Your task to perform on an android device: turn off improve location accuracy Image 0: 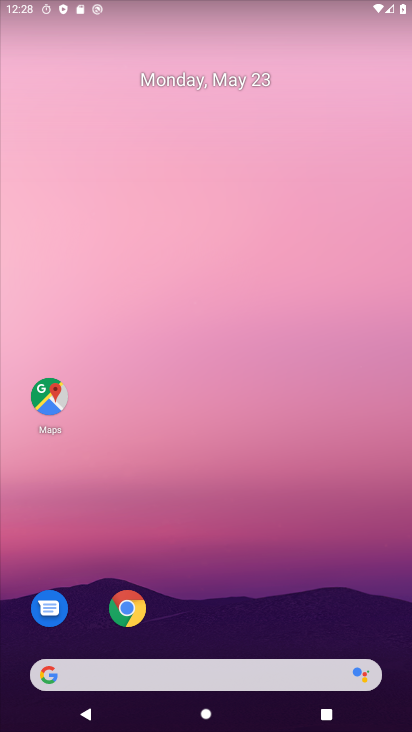
Step 0: drag from (349, 594) to (369, 246)
Your task to perform on an android device: turn off improve location accuracy Image 1: 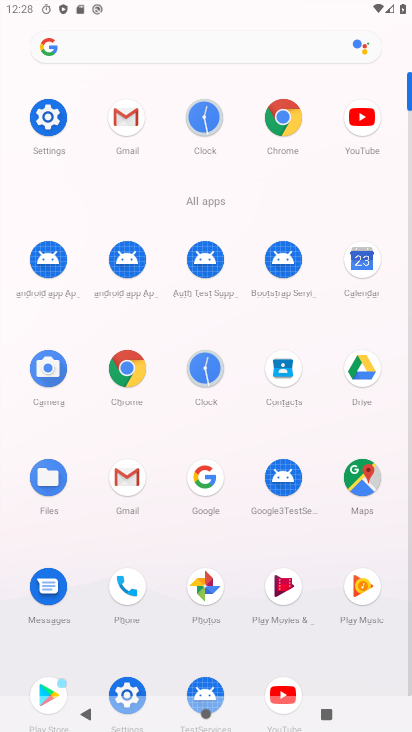
Step 1: click (42, 118)
Your task to perform on an android device: turn off improve location accuracy Image 2: 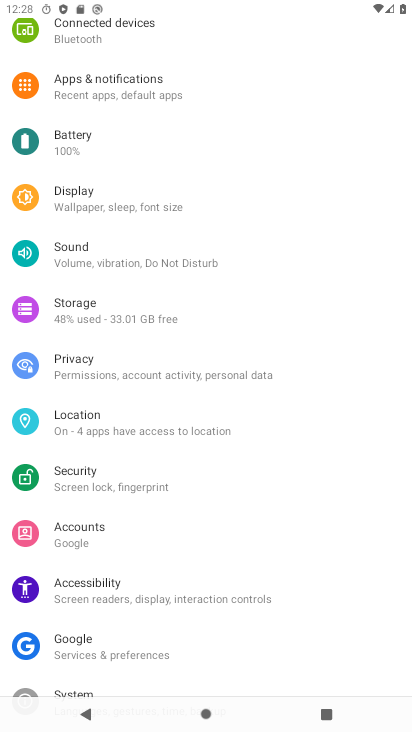
Step 2: drag from (186, 260) to (212, 540)
Your task to perform on an android device: turn off improve location accuracy Image 3: 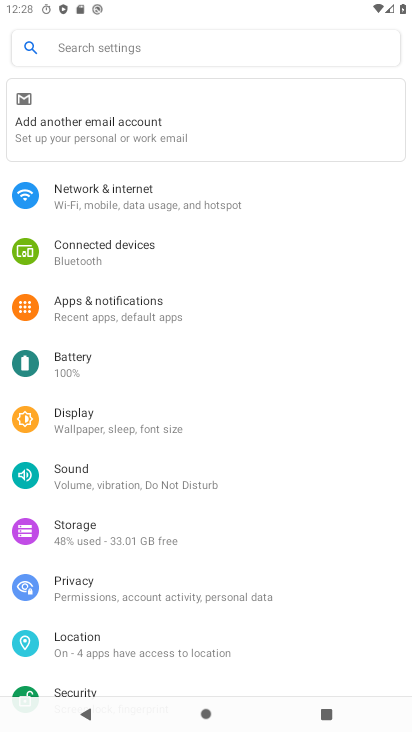
Step 3: click (114, 638)
Your task to perform on an android device: turn off improve location accuracy Image 4: 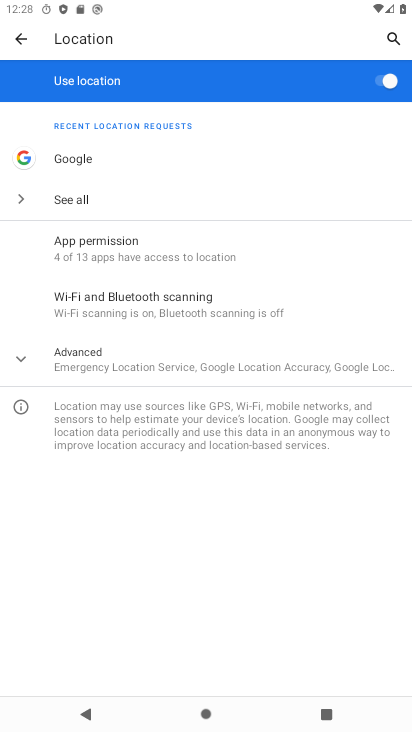
Step 4: click (118, 356)
Your task to perform on an android device: turn off improve location accuracy Image 5: 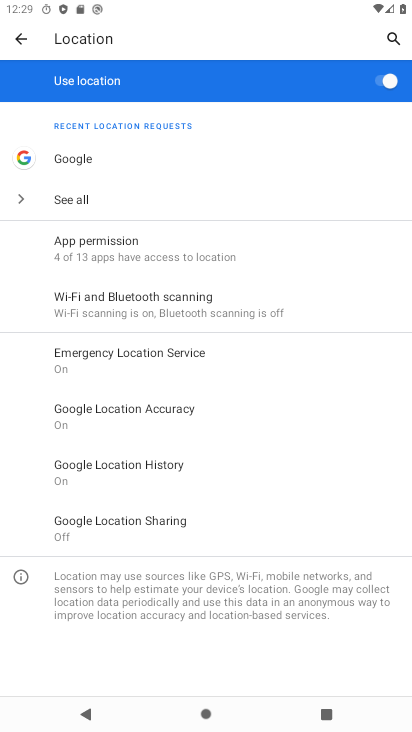
Step 5: click (117, 405)
Your task to perform on an android device: turn off improve location accuracy Image 6: 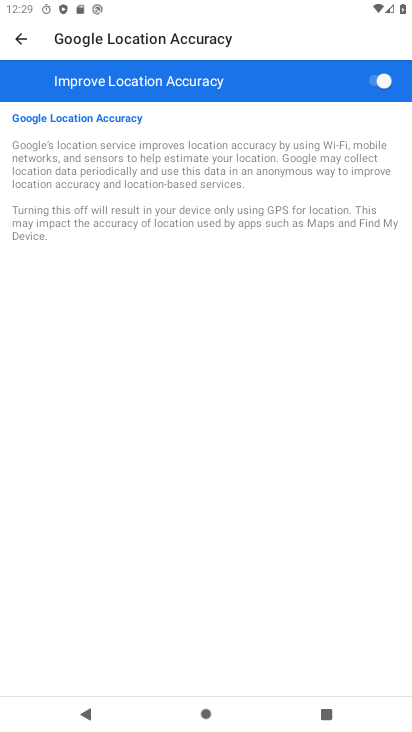
Step 6: click (380, 77)
Your task to perform on an android device: turn off improve location accuracy Image 7: 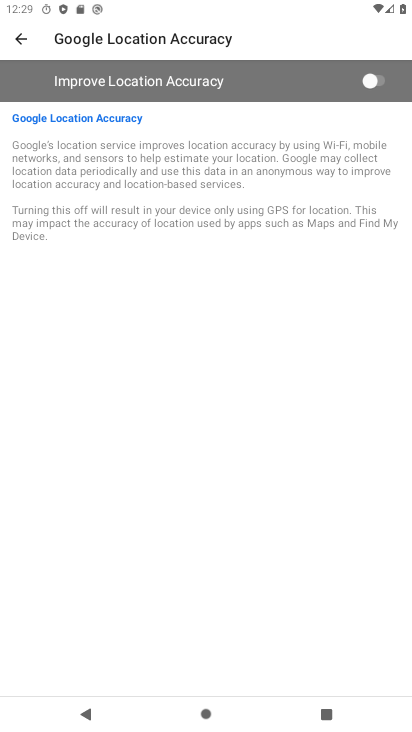
Step 7: task complete